Your task to perform on an android device: open app "Pandora - Music & Podcasts" (install if not already installed), go to login, and select forgot password Image 0: 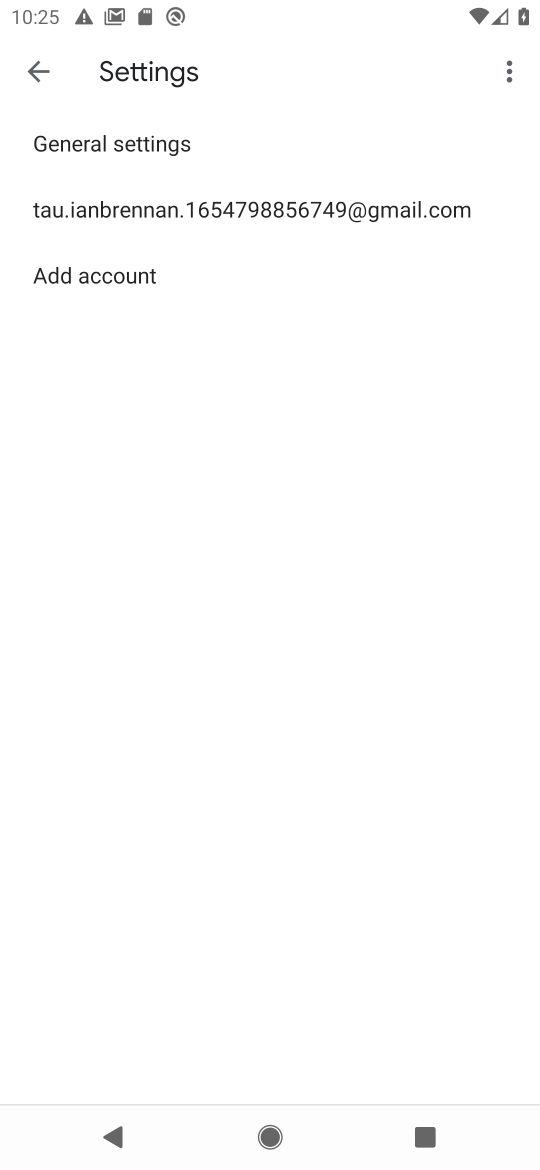
Step 0: press home button
Your task to perform on an android device: open app "Pandora - Music & Podcasts" (install if not already installed), go to login, and select forgot password Image 1: 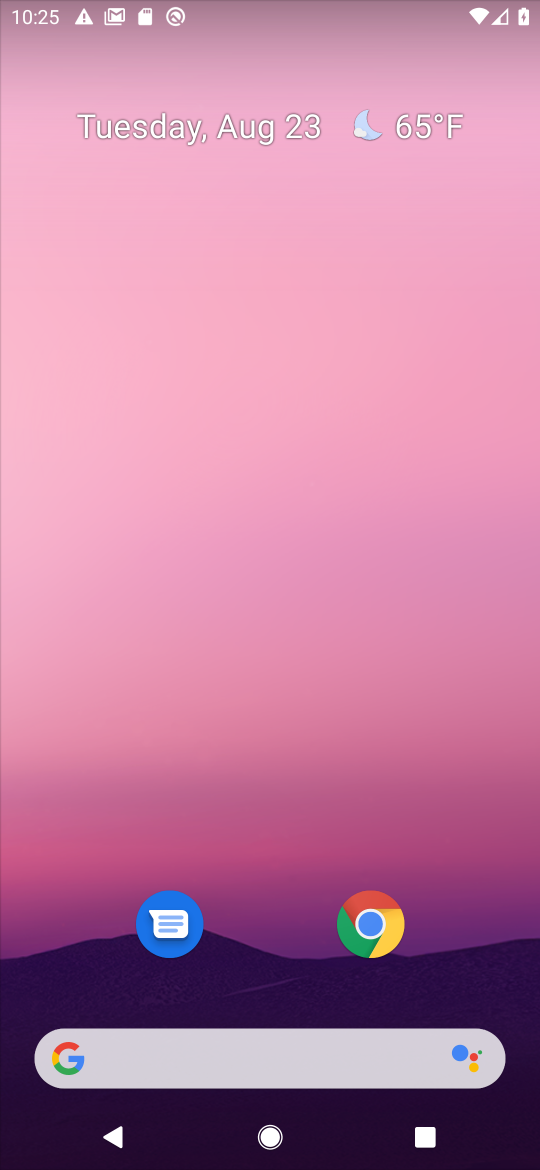
Step 1: drag from (339, 899) to (283, 288)
Your task to perform on an android device: open app "Pandora - Music & Podcasts" (install if not already installed), go to login, and select forgot password Image 2: 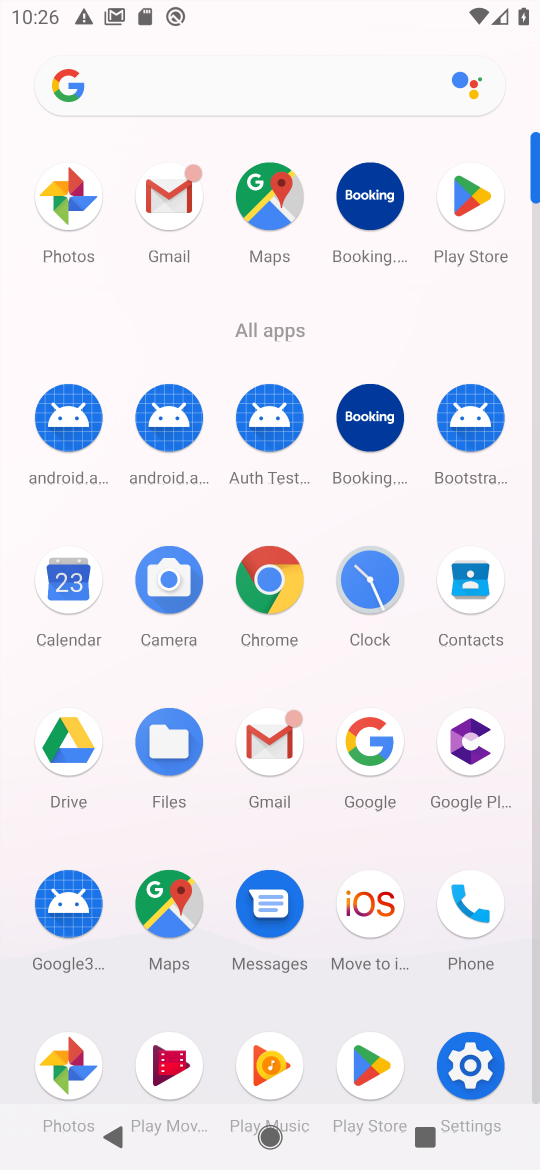
Step 2: click (472, 198)
Your task to perform on an android device: open app "Pandora - Music & Podcasts" (install if not already installed), go to login, and select forgot password Image 3: 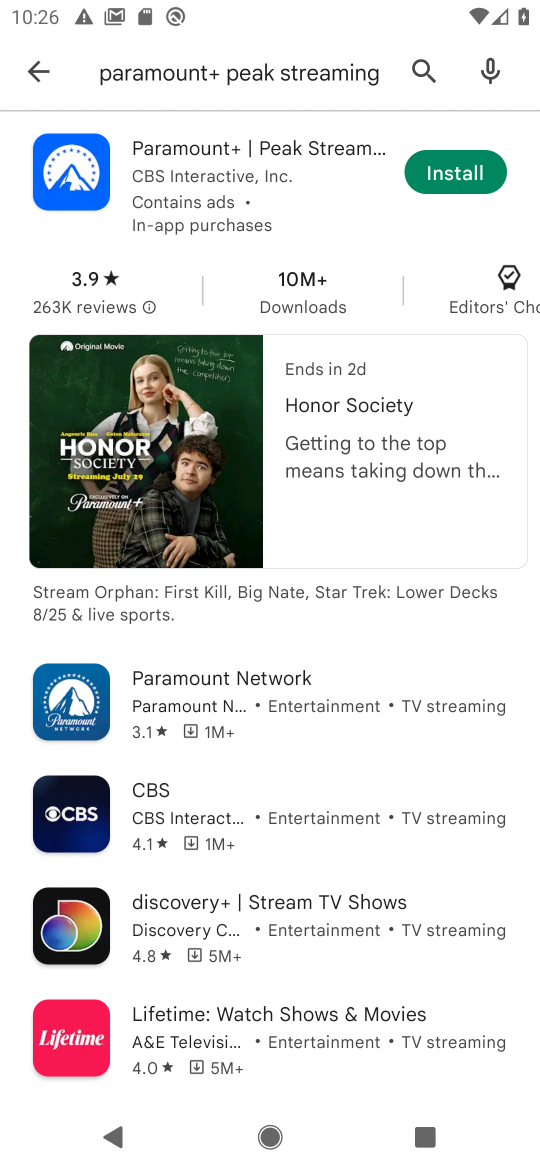
Step 3: click (428, 77)
Your task to perform on an android device: open app "Pandora - Music & Podcasts" (install if not already installed), go to login, and select forgot password Image 4: 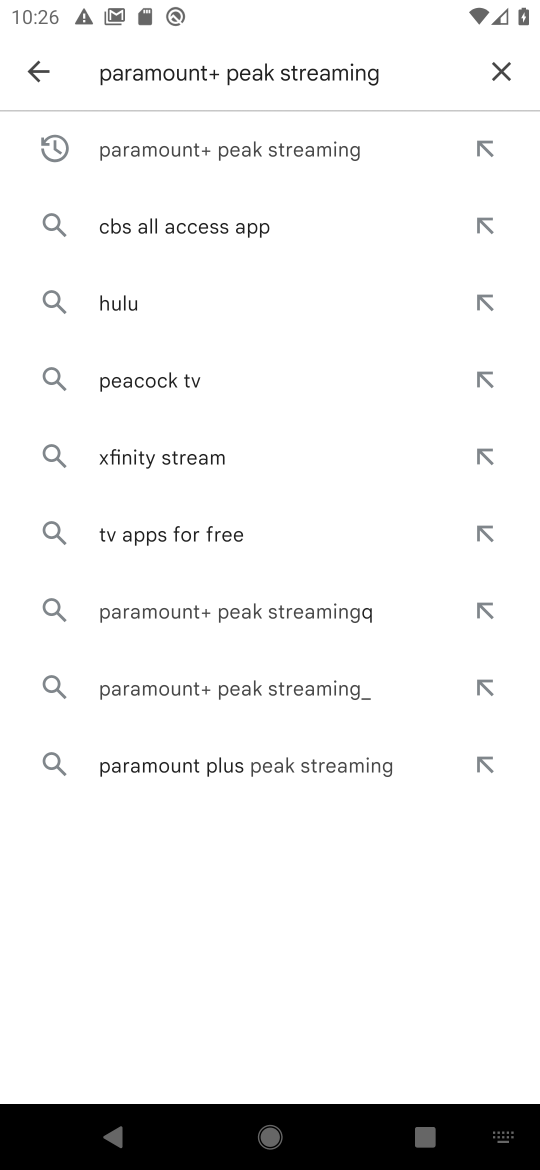
Step 4: click (503, 73)
Your task to perform on an android device: open app "Pandora - Music & Podcasts" (install if not already installed), go to login, and select forgot password Image 5: 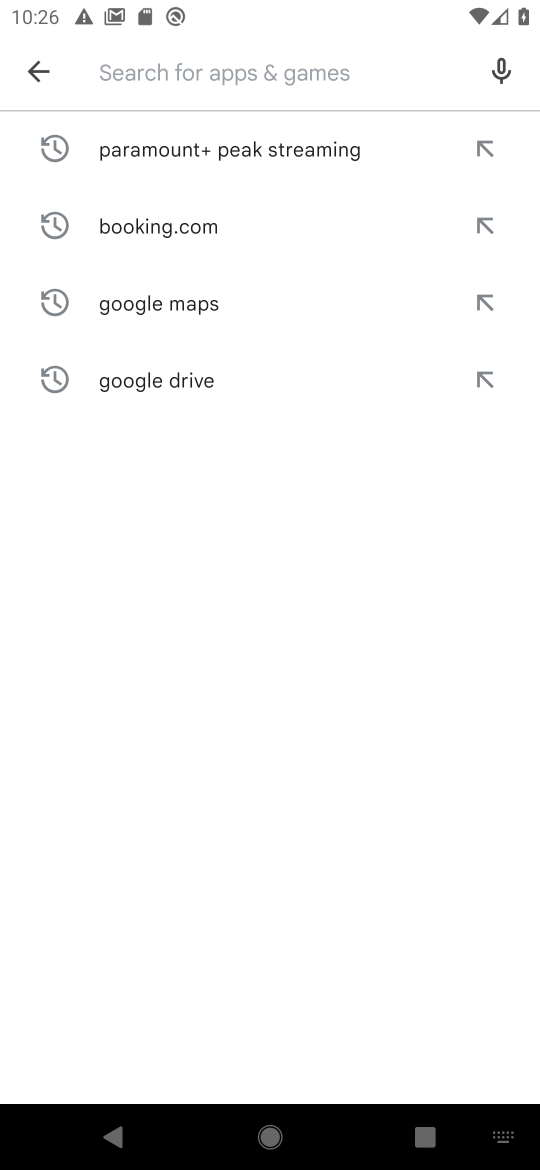
Step 5: type "pandora"
Your task to perform on an android device: open app "Pandora - Music & Podcasts" (install if not already installed), go to login, and select forgot password Image 6: 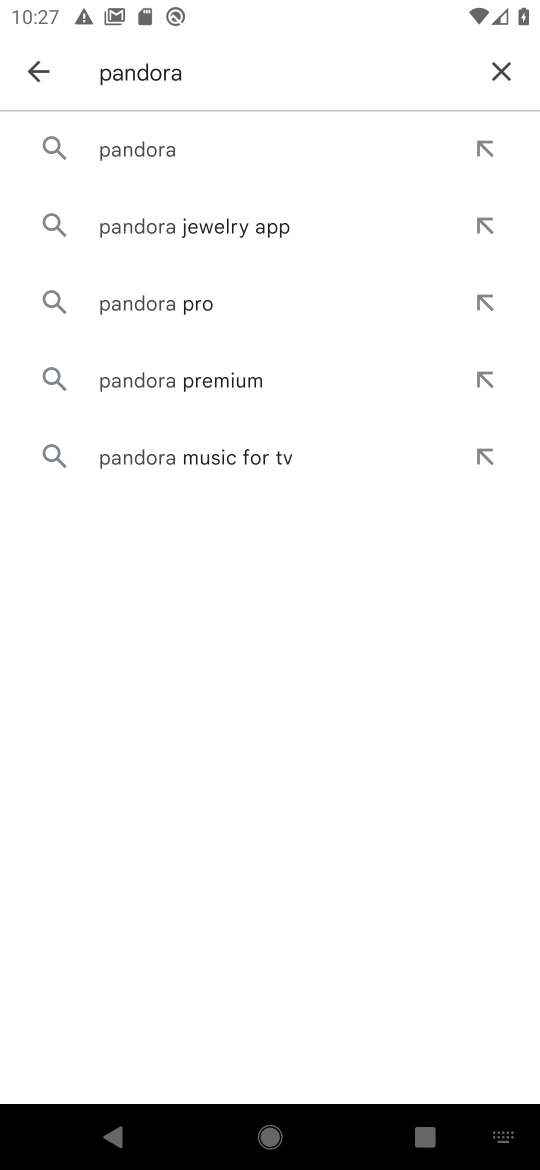
Step 6: type "music and podacast"
Your task to perform on an android device: open app "Pandora - Music & Podcasts" (install if not already installed), go to login, and select forgot password Image 7: 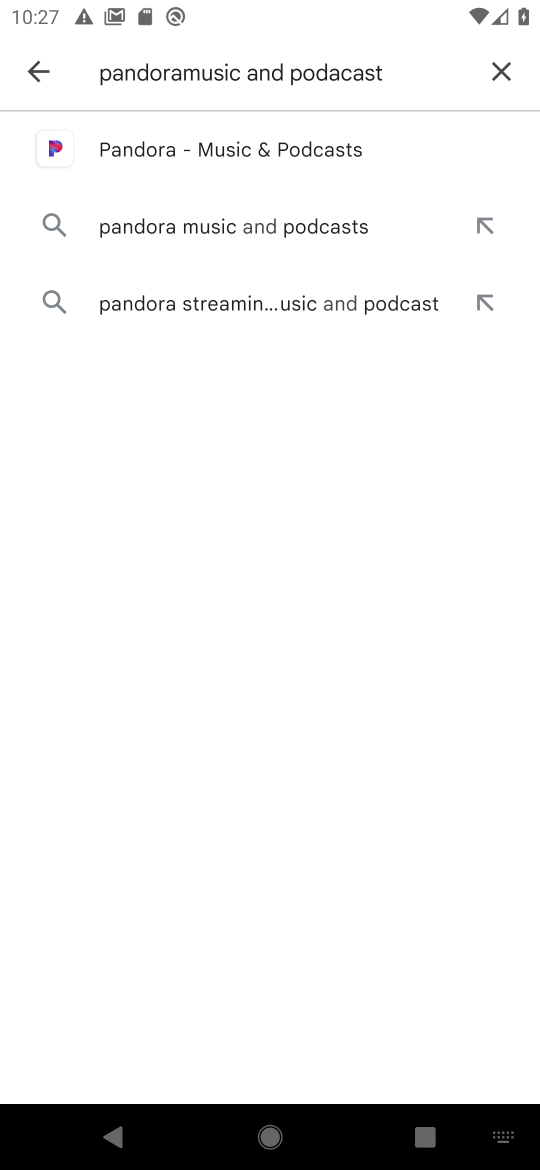
Step 7: click (216, 155)
Your task to perform on an android device: open app "Pandora - Music & Podcasts" (install if not already installed), go to login, and select forgot password Image 8: 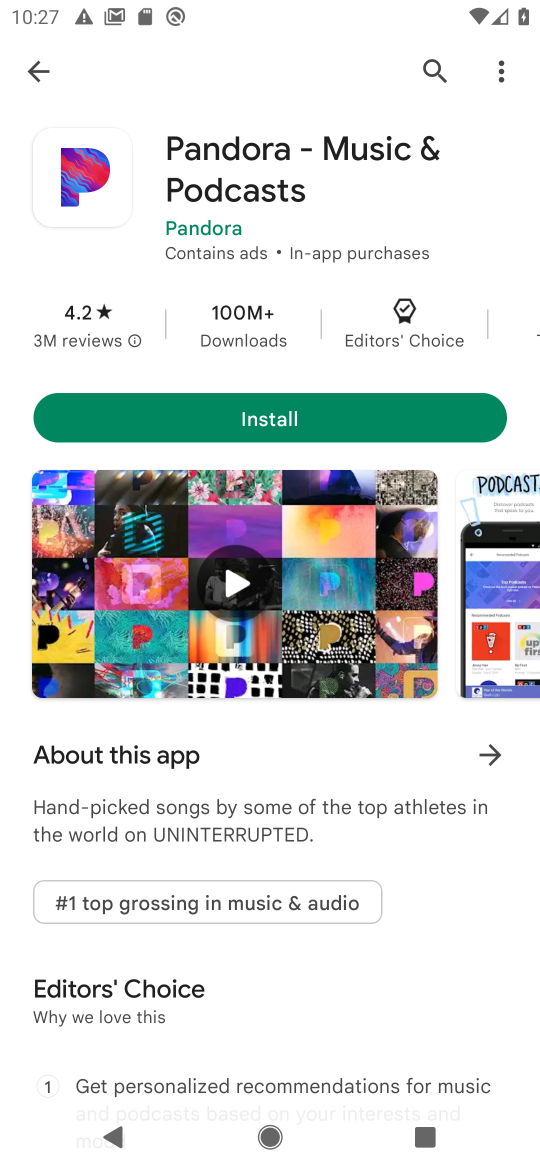
Step 8: click (309, 418)
Your task to perform on an android device: open app "Pandora - Music & Podcasts" (install if not already installed), go to login, and select forgot password Image 9: 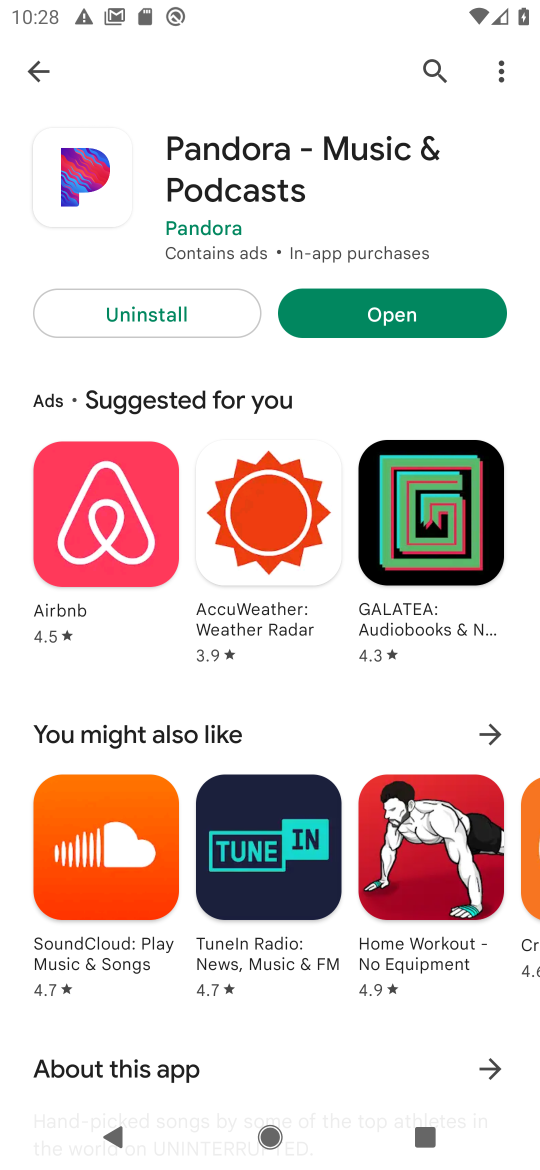
Step 9: click (400, 326)
Your task to perform on an android device: open app "Pandora - Music & Podcasts" (install if not already installed), go to login, and select forgot password Image 10: 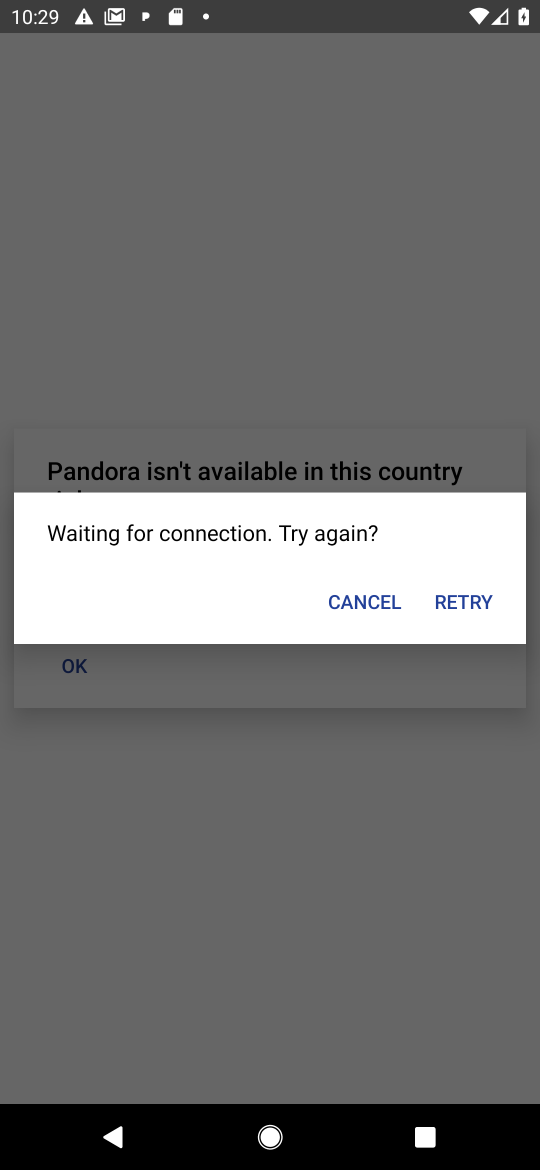
Step 10: click (464, 597)
Your task to perform on an android device: open app "Pandora - Music & Podcasts" (install if not already installed), go to login, and select forgot password Image 11: 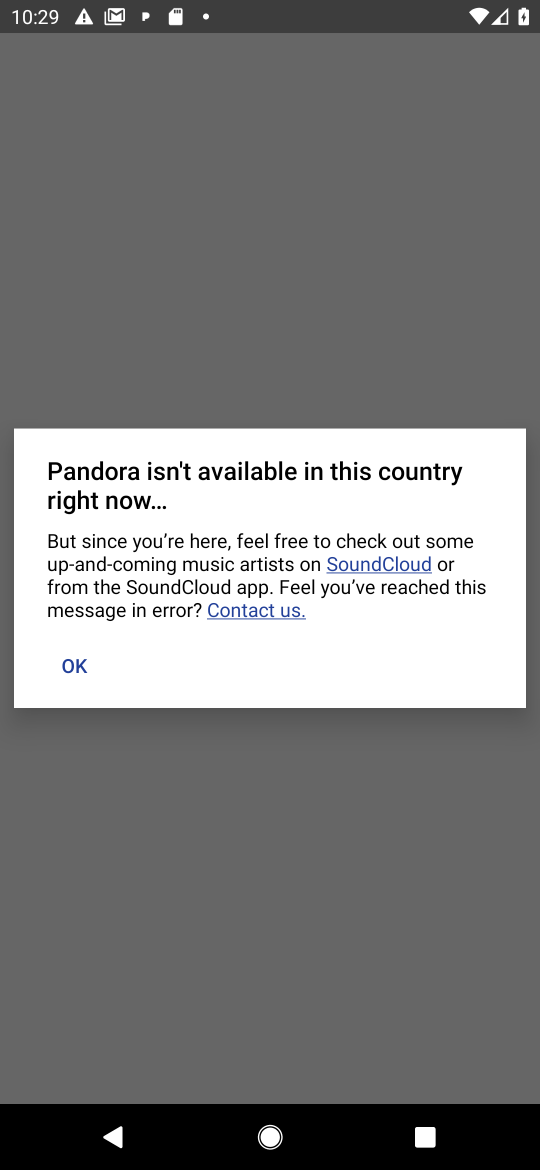
Step 11: task complete